Your task to perform on an android device: Open maps Image 0: 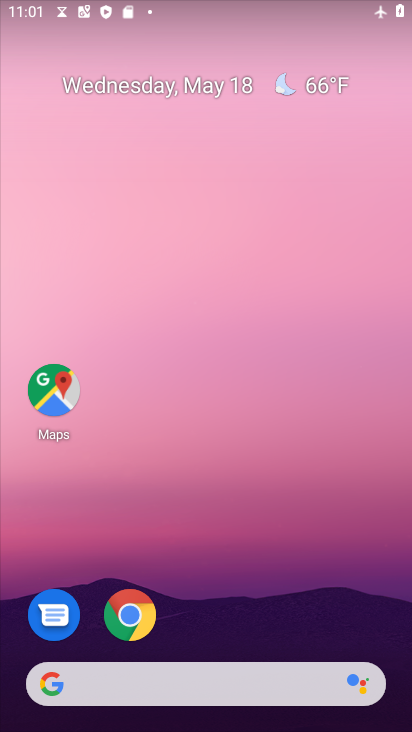
Step 0: drag from (194, 580) to (149, 9)
Your task to perform on an android device: Open maps Image 1: 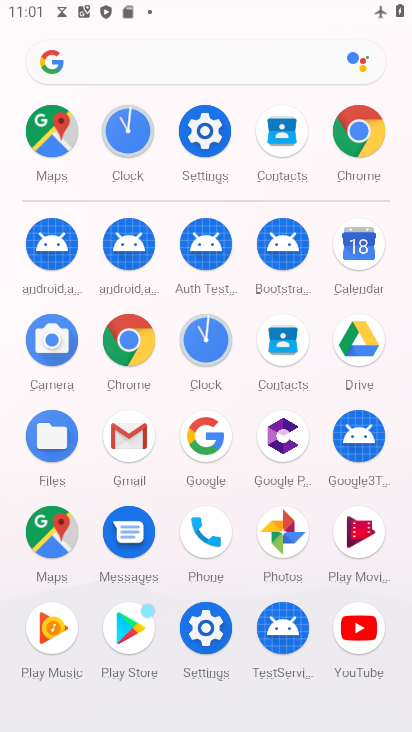
Step 1: click (49, 529)
Your task to perform on an android device: Open maps Image 2: 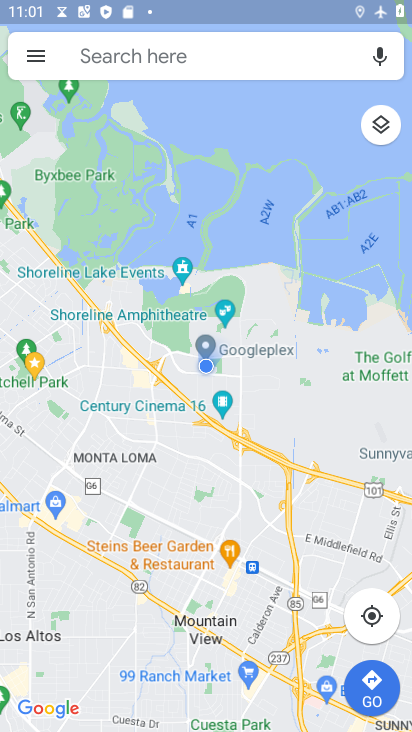
Step 2: task complete